Your task to perform on an android device: Go to Yahoo.com Image 0: 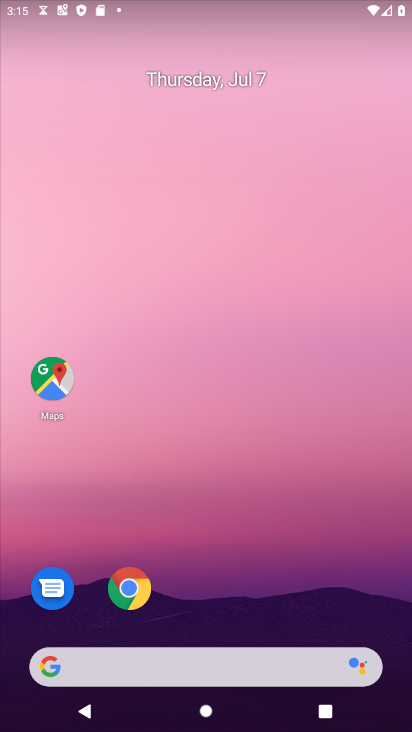
Step 0: click (130, 586)
Your task to perform on an android device: Go to Yahoo.com Image 1: 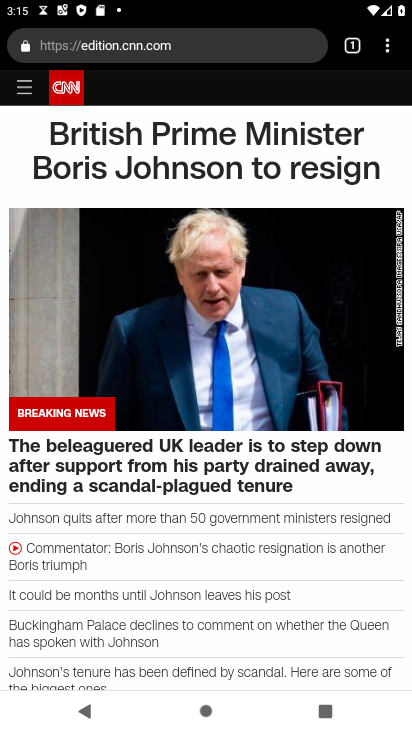
Step 1: click (251, 40)
Your task to perform on an android device: Go to Yahoo.com Image 2: 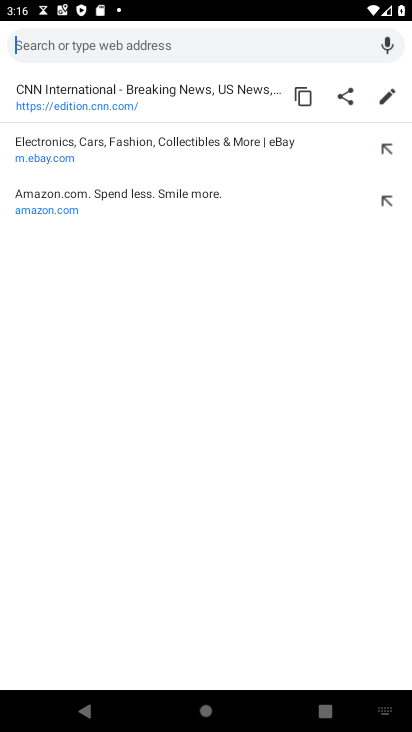
Step 2: type "Yahoo.com"
Your task to perform on an android device: Go to Yahoo.com Image 3: 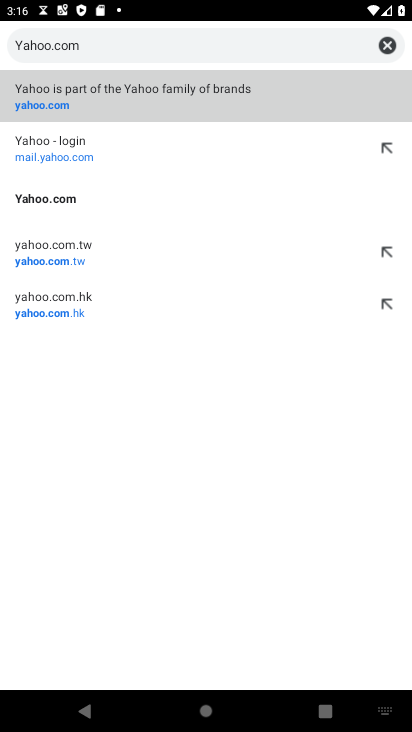
Step 3: click (60, 203)
Your task to perform on an android device: Go to Yahoo.com Image 4: 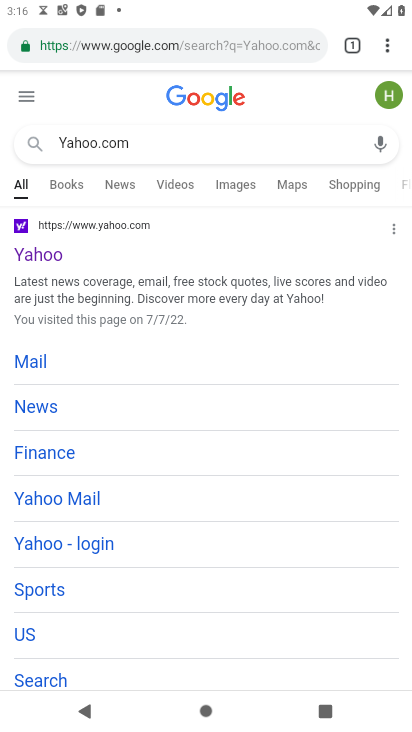
Step 4: click (42, 249)
Your task to perform on an android device: Go to Yahoo.com Image 5: 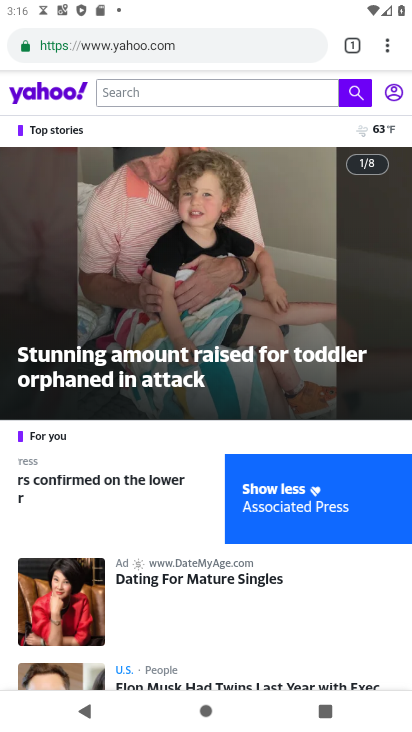
Step 5: task complete